Your task to perform on an android device: turn notification dots on Image 0: 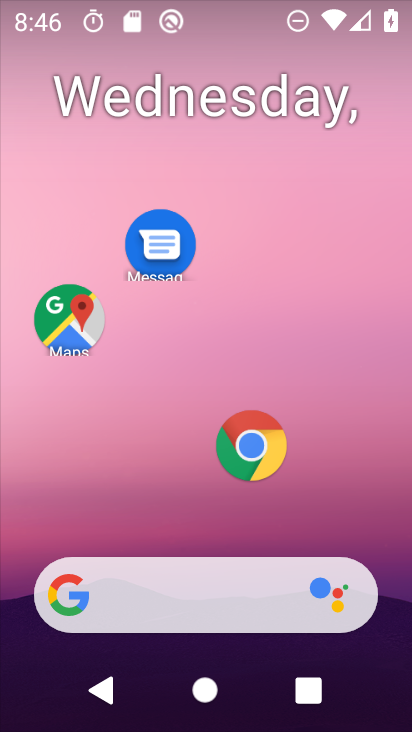
Step 0: drag from (205, 536) to (219, 70)
Your task to perform on an android device: turn notification dots on Image 1: 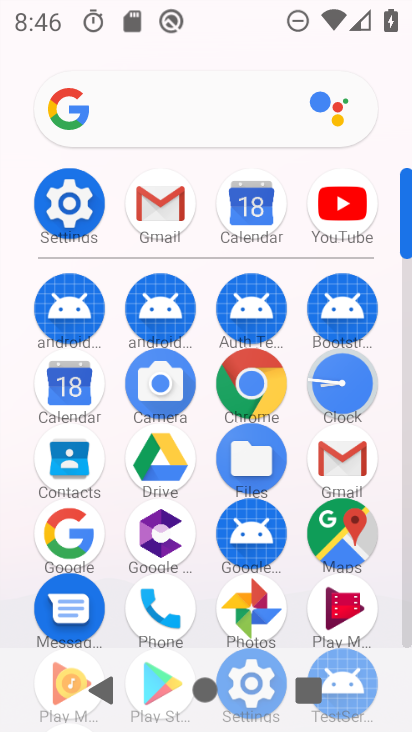
Step 1: click (65, 192)
Your task to perform on an android device: turn notification dots on Image 2: 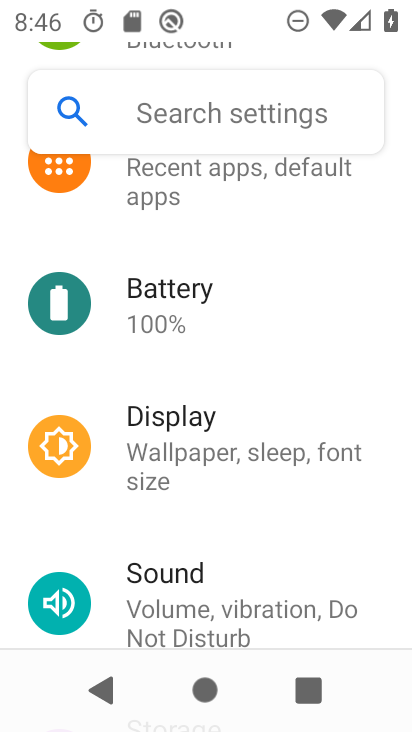
Step 2: drag from (96, 184) to (132, 647)
Your task to perform on an android device: turn notification dots on Image 3: 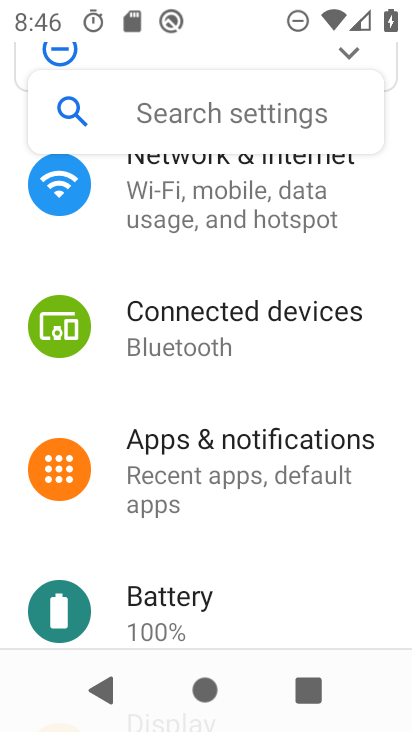
Step 3: click (112, 457)
Your task to perform on an android device: turn notification dots on Image 4: 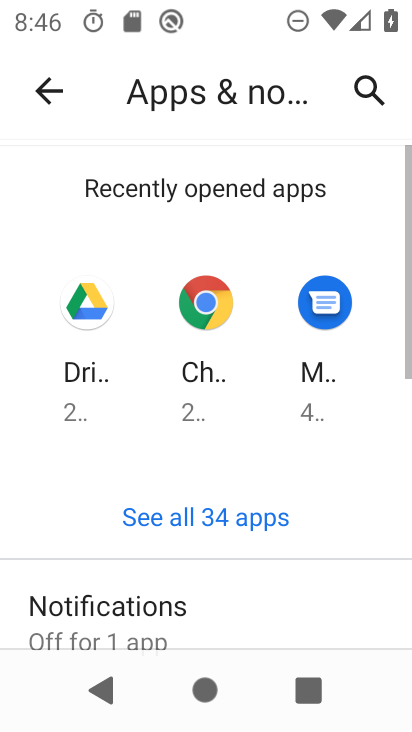
Step 4: click (200, 601)
Your task to perform on an android device: turn notification dots on Image 5: 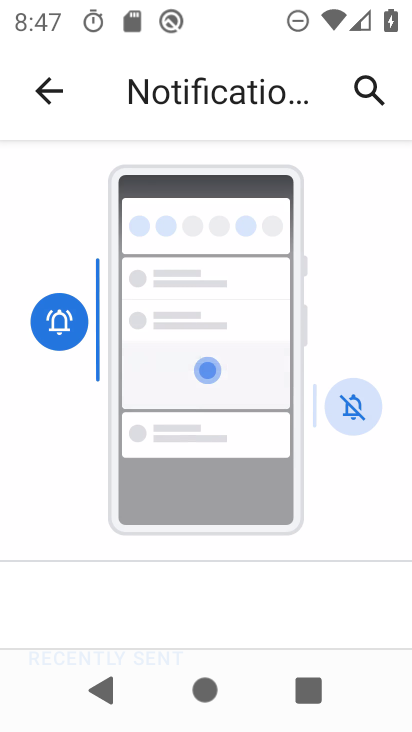
Step 5: drag from (220, 622) to (241, 135)
Your task to perform on an android device: turn notification dots on Image 6: 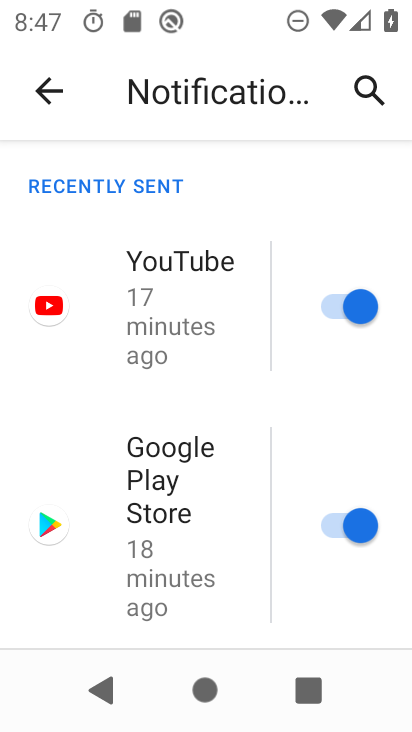
Step 6: drag from (228, 607) to (230, 454)
Your task to perform on an android device: turn notification dots on Image 7: 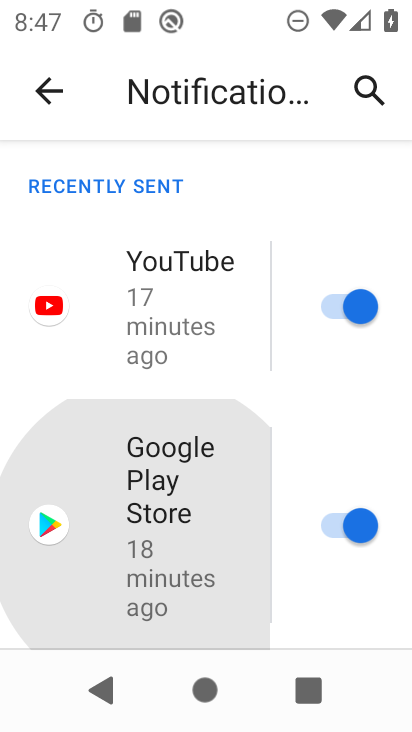
Step 7: drag from (238, 295) to (247, 148)
Your task to perform on an android device: turn notification dots on Image 8: 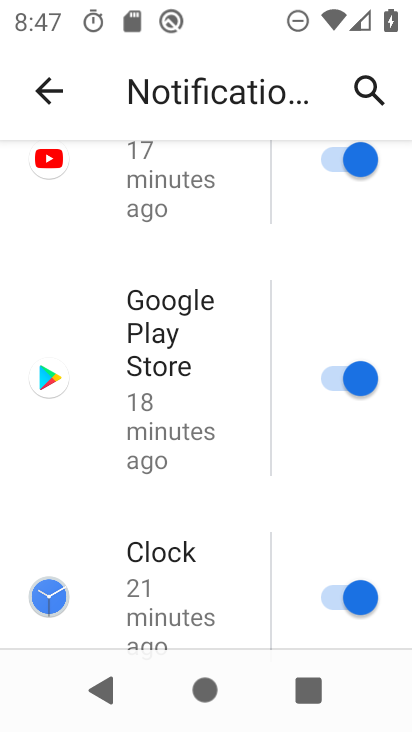
Step 8: drag from (229, 632) to (240, 102)
Your task to perform on an android device: turn notification dots on Image 9: 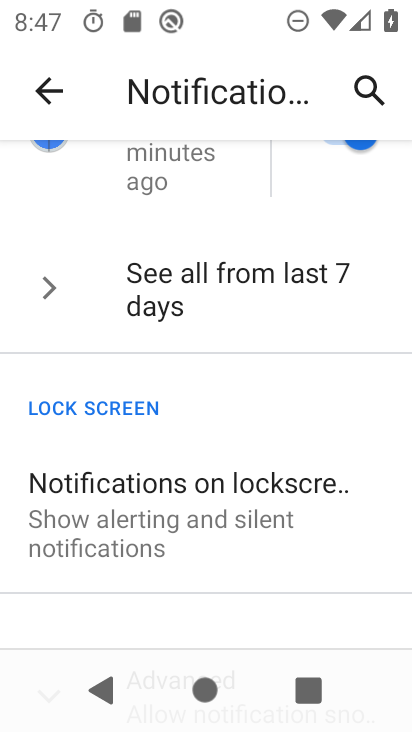
Step 9: drag from (234, 601) to (256, 158)
Your task to perform on an android device: turn notification dots on Image 10: 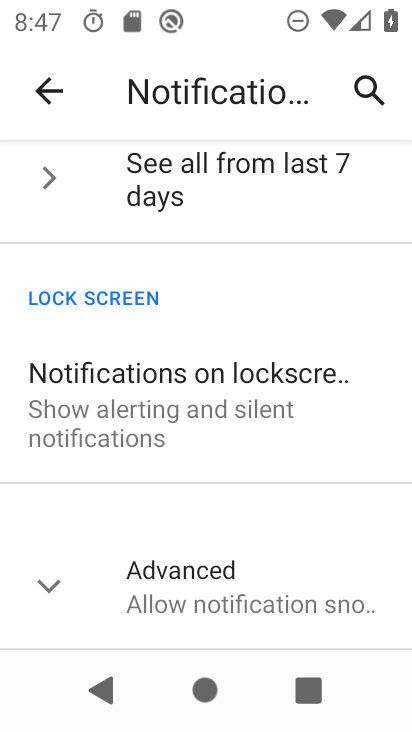
Step 10: click (46, 581)
Your task to perform on an android device: turn notification dots on Image 11: 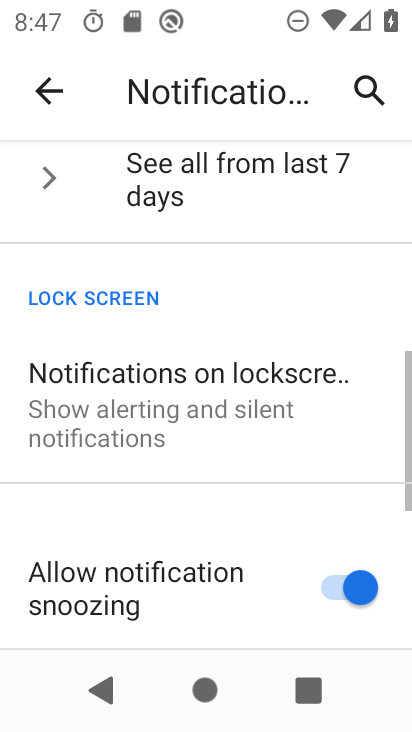
Step 11: task complete